Your task to perform on an android device: Empty the shopping cart on amazon. Add razer blackwidow to the cart on amazon, then select checkout. Image 0: 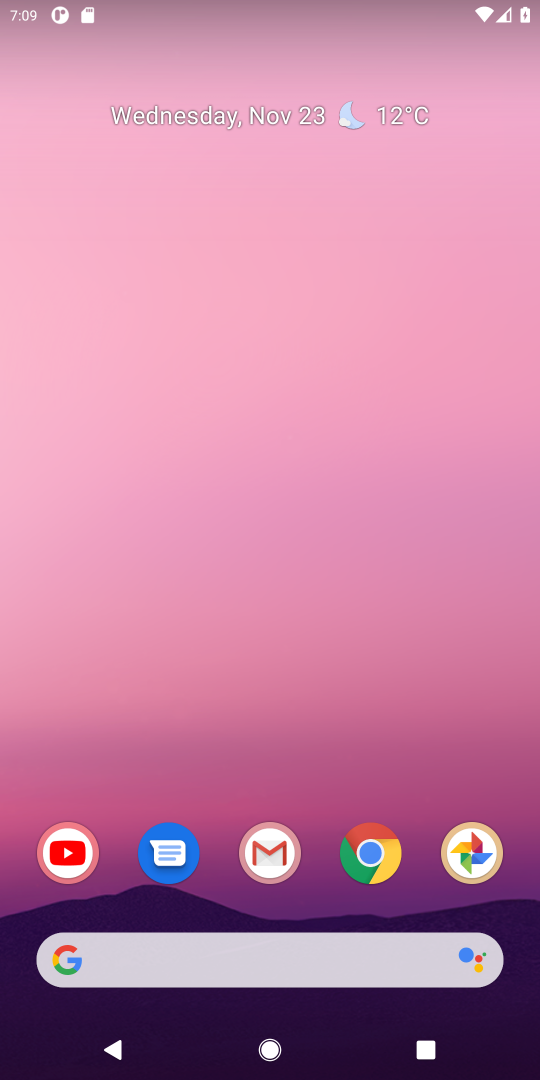
Step 0: click (366, 856)
Your task to perform on an android device: Empty the shopping cart on amazon. Add razer blackwidow to the cart on amazon, then select checkout. Image 1: 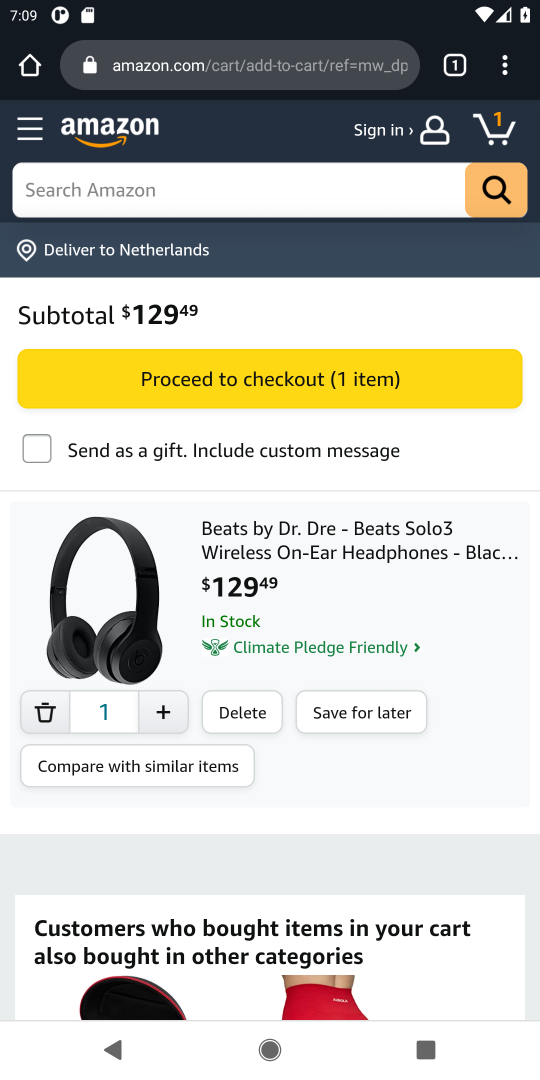
Step 1: click (497, 138)
Your task to perform on an android device: Empty the shopping cart on amazon. Add razer blackwidow to the cart on amazon, then select checkout. Image 2: 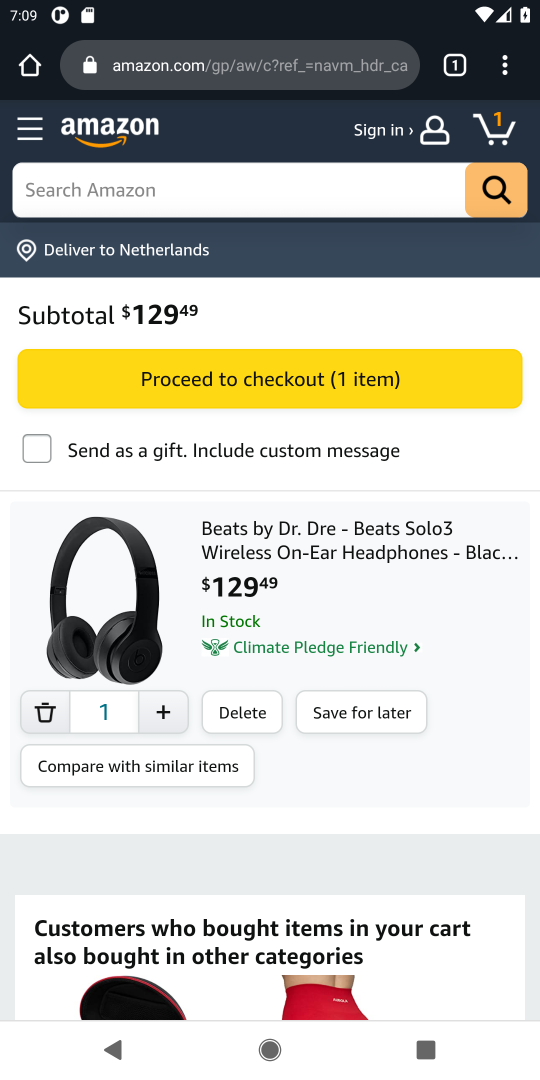
Step 2: click (255, 713)
Your task to perform on an android device: Empty the shopping cart on amazon. Add razer blackwidow to the cart on amazon, then select checkout. Image 3: 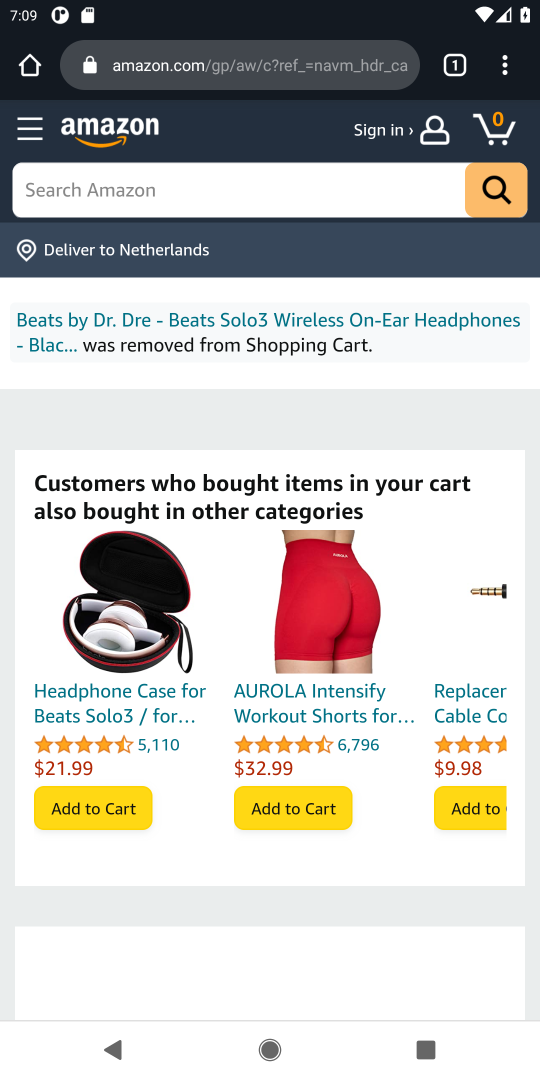
Step 3: drag from (288, 406) to (305, 858)
Your task to perform on an android device: Empty the shopping cart on amazon. Add razer blackwidow to the cart on amazon, then select checkout. Image 4: 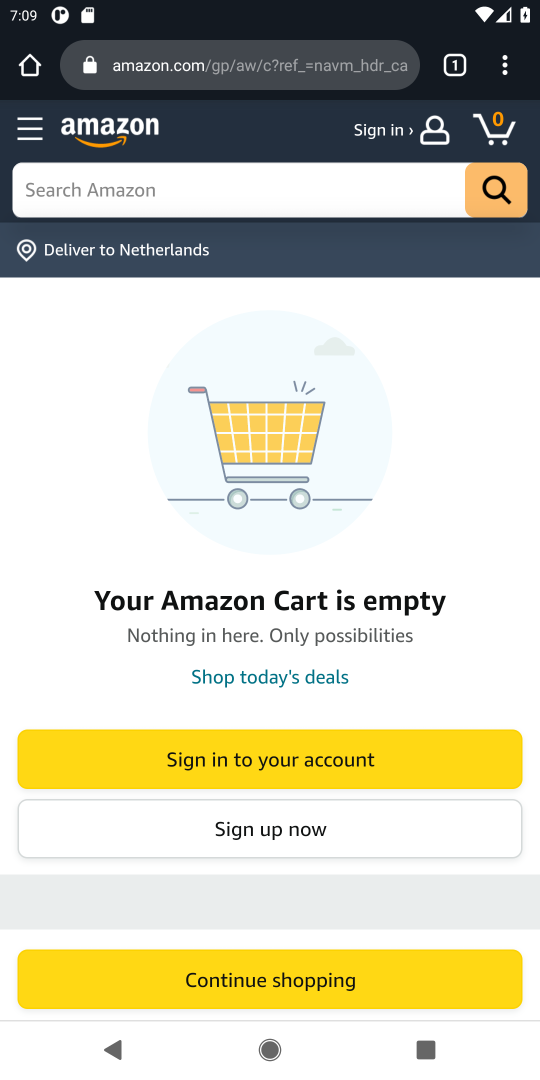
Step 4: click (122, 193)
Your task to perform on an android device: Empty the shopping cart on amazon. Add razer blackwidow to the cart on amazon, then select checkout. Image 5: 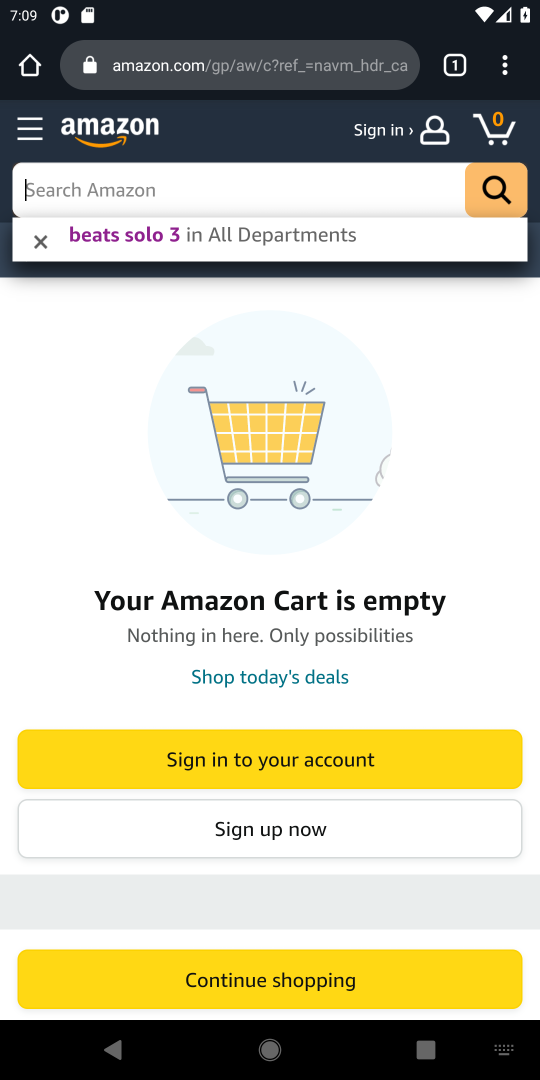
Step 5: type "razer blackwidow"
Your task to perform on an android device: Empty the shopping cart on amazon. Add razer blackwidow to the cart on amazon, then select checkout. Image 6: 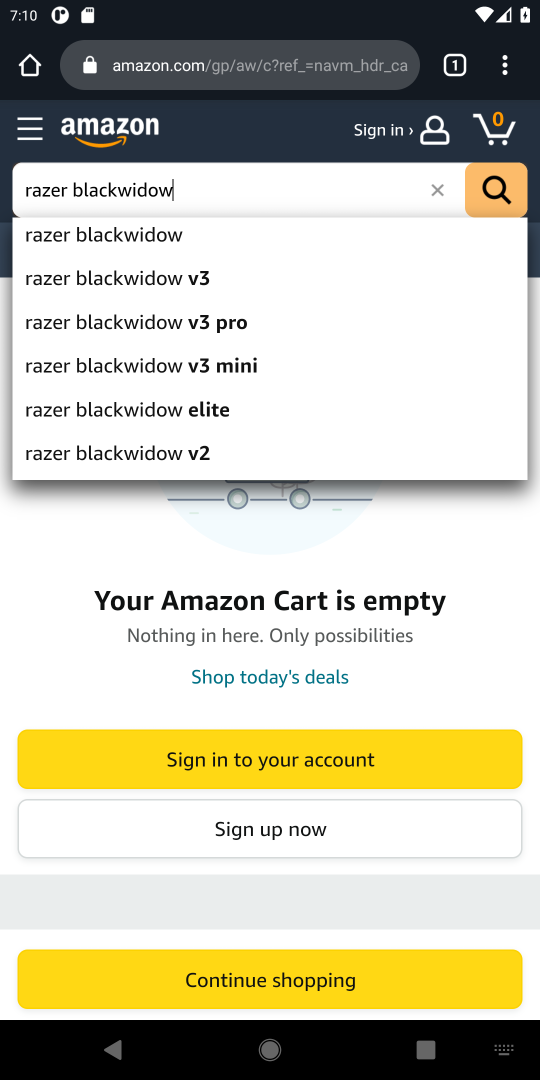
Step 6: click (74, 241)
Your task to perform on an android device: Empty the shopping cart on amazon. Add razer blackwidow to the cart on amazon, then select checkout. Image 7: 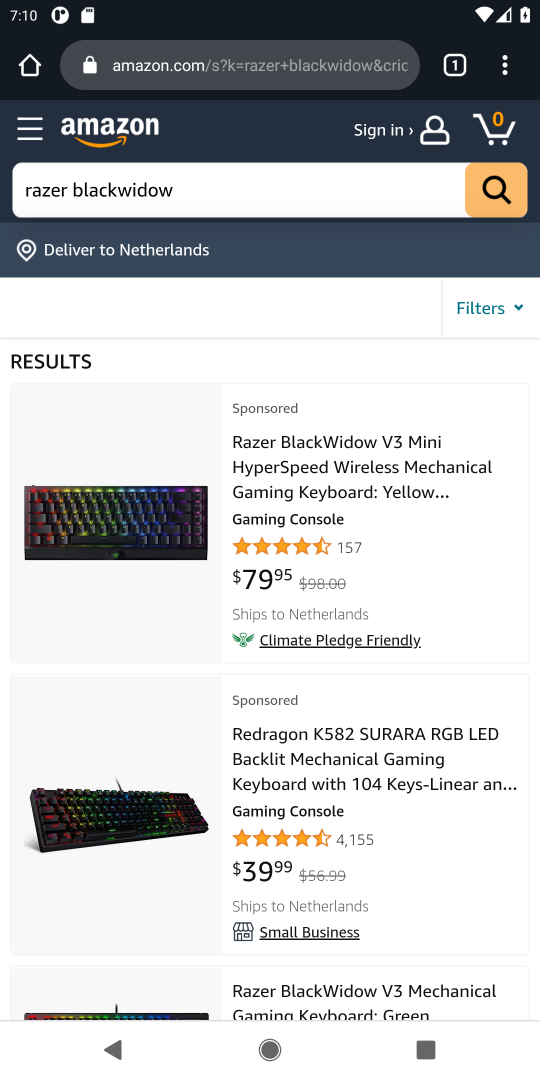
Step 7: click (127, 526)
Your task to perform on an android device: Empty the shopping cart on amazon. Add razer blackwidow to the cart on amazon, then select checkout. Image 8: 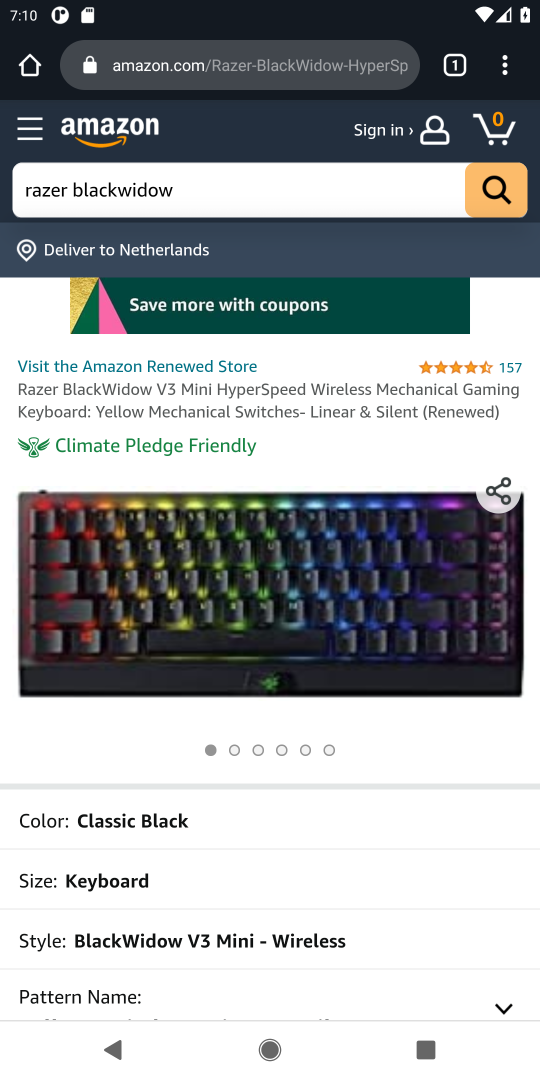
Step 8: drag from (380, 758) to (361, 401)
Your task to perform on an android device: Empty the shopping cart on amazon. Add razer blackwidow to the cart on amazon, then select checkout. Image 9: 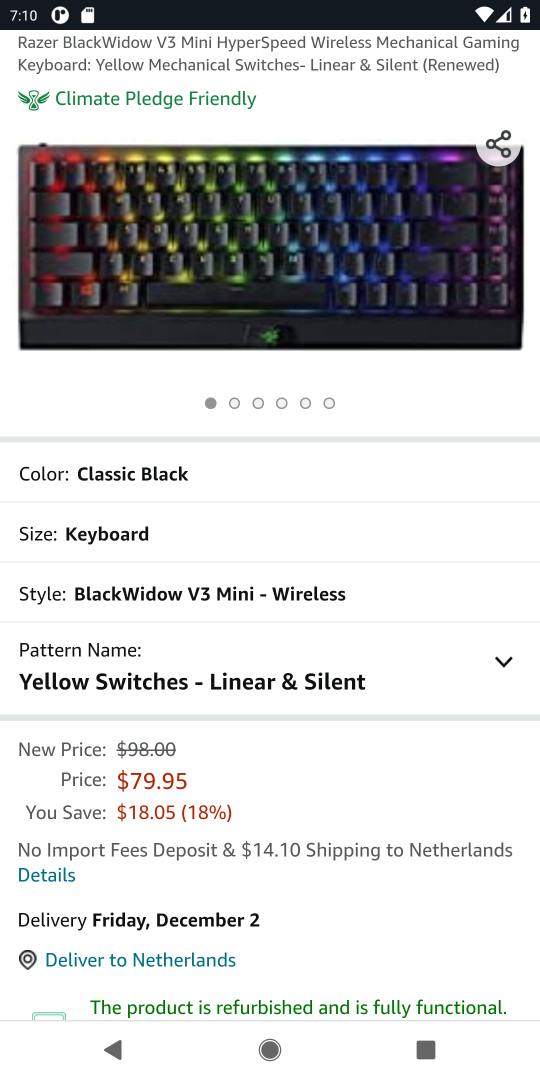
Step 9: drag from (305, 720) to (308, 345)
Your task to perform on an android device: Empty the shopping cart on amazon. Add razer blackwidow to the cart on amazon, then select checkout. Image 10: 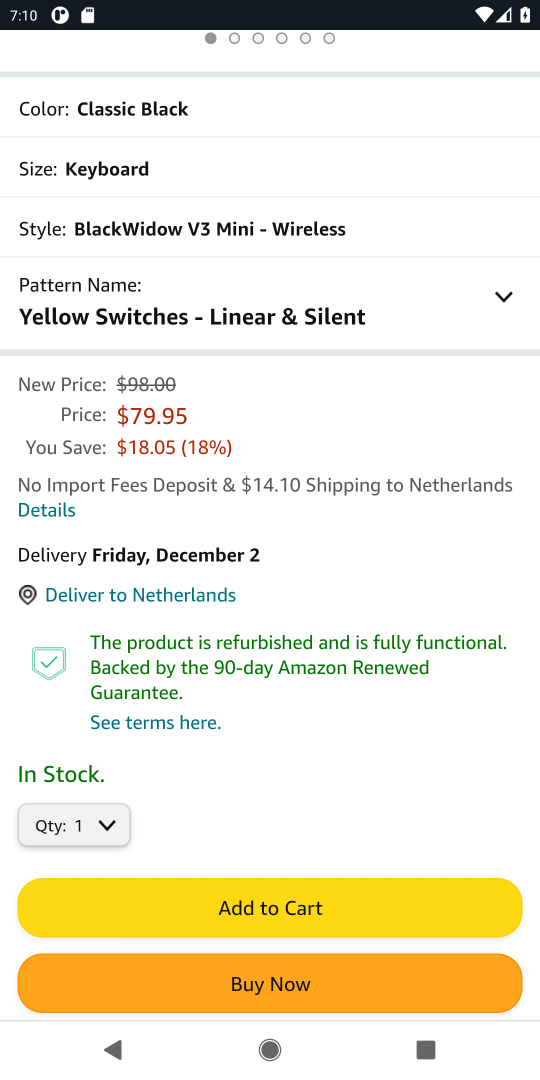
Step 10: drag from (290, 711) to (283, 433)
Your task to perform on an android device: Empty the shopping cart on amazon. Add razer blackwidow to the cart on amazon, then select checkout. Image 11: 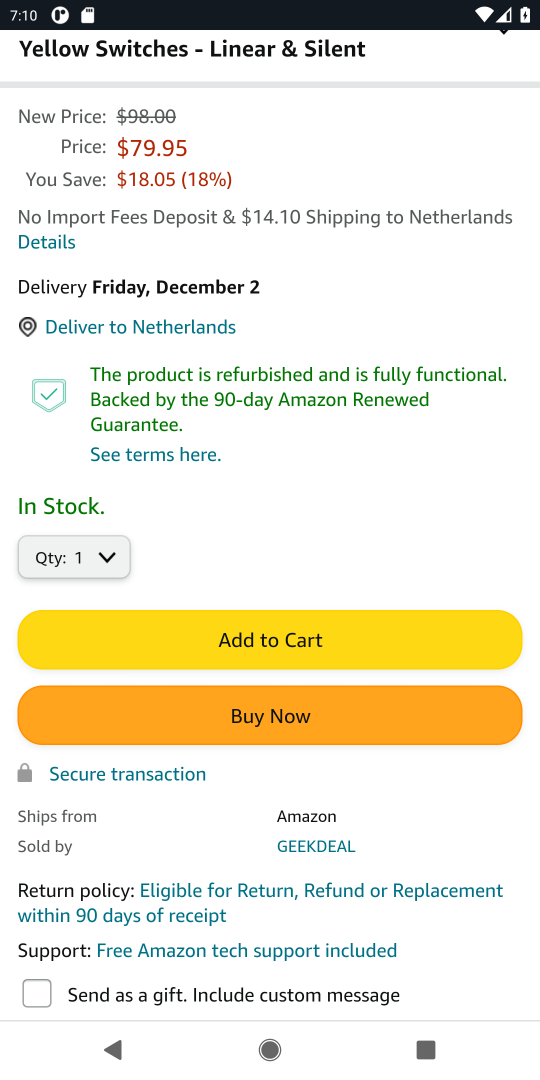
Step 11: click (262, 638)
Your task to perform on an android device: Empty the shopping cart on amazon. Add razer blackwidow to the cart on amazon, then select checkout. Image 12: 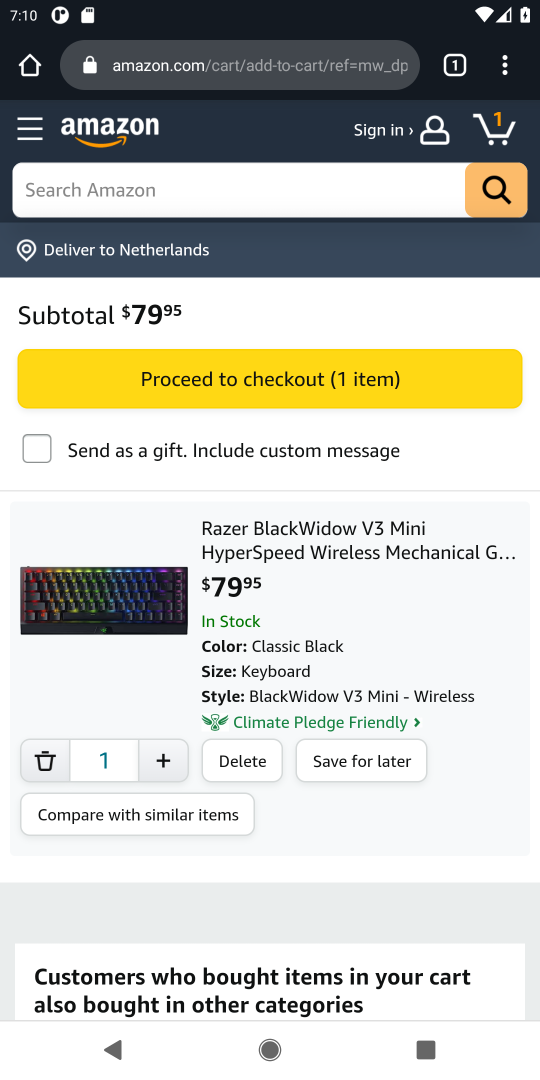
Step 12: click (230, 389)
Your task to perform on an android device: Empty the shopping cart on amazon. Add razer blackwidow to the cart on amazon, then select checkout. Image 13: 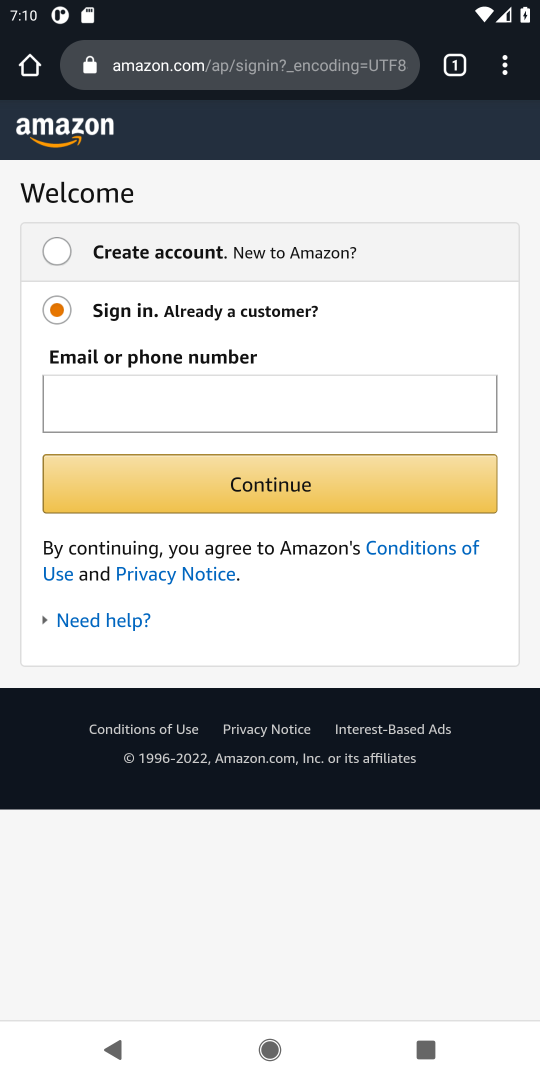
Step 13: task complete